Your task to perform on an android device: add a label to a message in the gmail app Image 0: 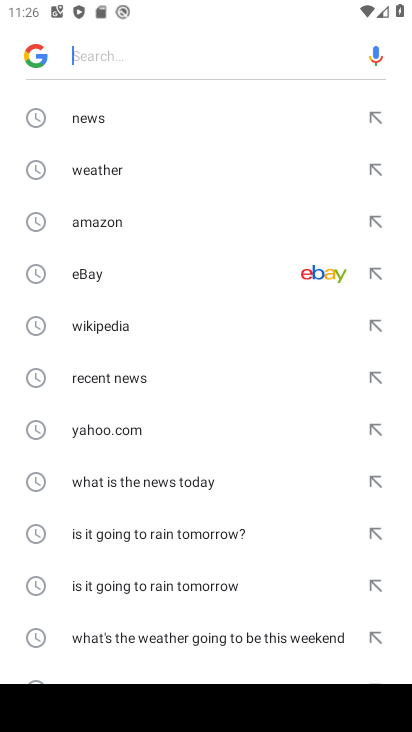
Step 0: press home button
Your task to perform on an android device: add a label to a message in the gmail app Image 1: 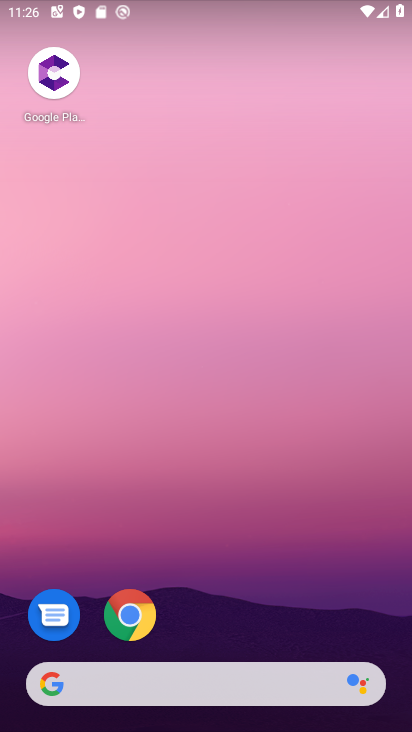
Step 1: drag from (251, 576) to (287, 19)
Your task to perform on an android device: add a label to a message in the gmail app Image 2: 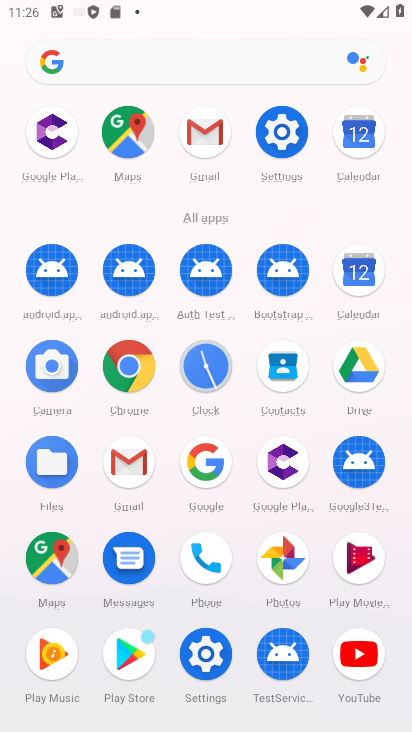
Step 2: click (215, 121)
Your task to perform on an android device: add a label to a message in the gmail app Image 3: 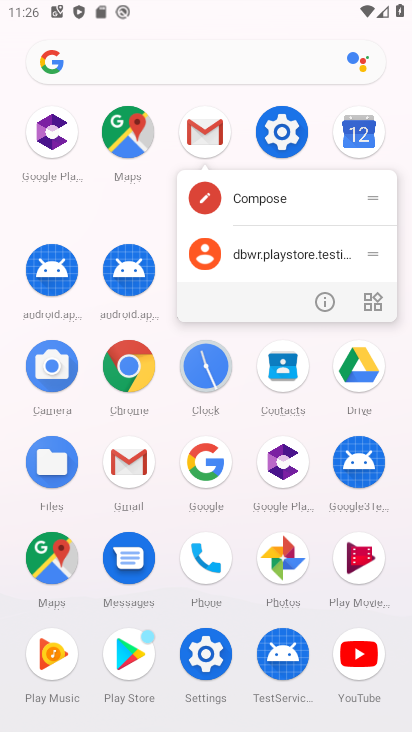
Step 3: click (204, 121)
Your task to perform on an android device: add a label to a message in the gmail app Image 4: 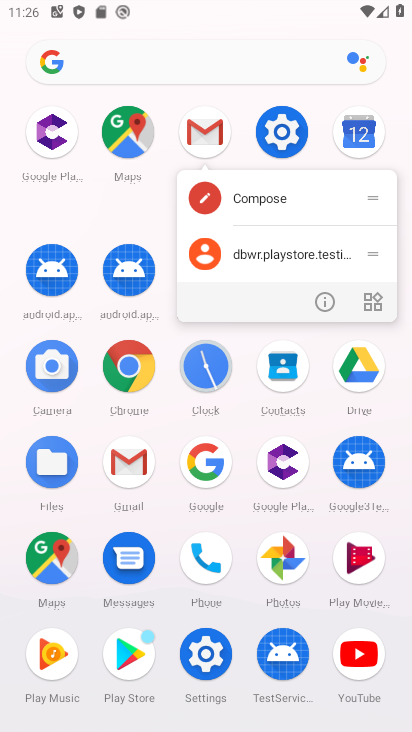
Step 4: click (202, 116)
Your task to perform on an android device: add a label to a message in the gmail app Image 5: 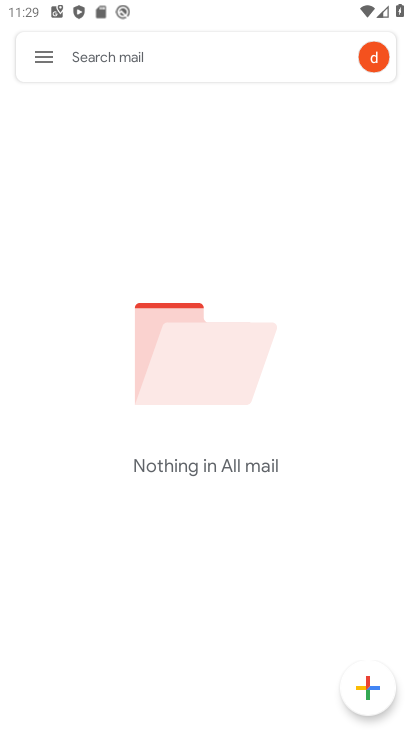
Step 5: task complete